Your task to perform on an android device: change keyboard looks Image 0: 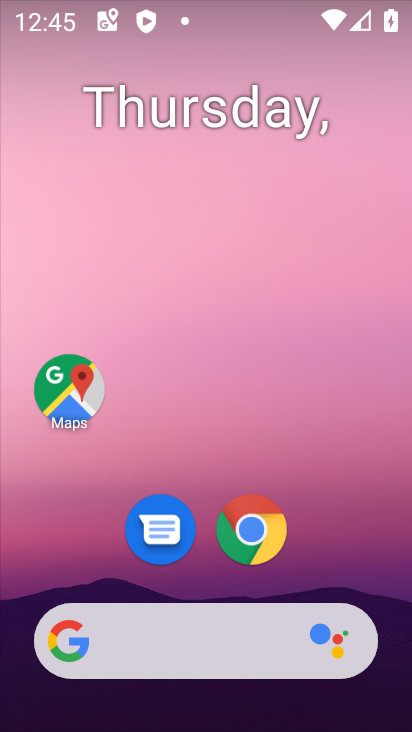
Step 0: drag from (211, 724) to (213, 140)
Your task to perform on an android device: change keyboard looks Image 1: 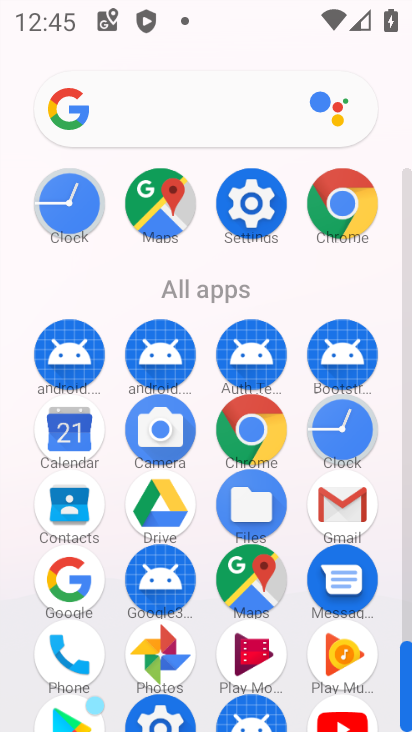
Step 1: click (247, 199)
Your task to perform on an android device: change keyboard looks Image 2: 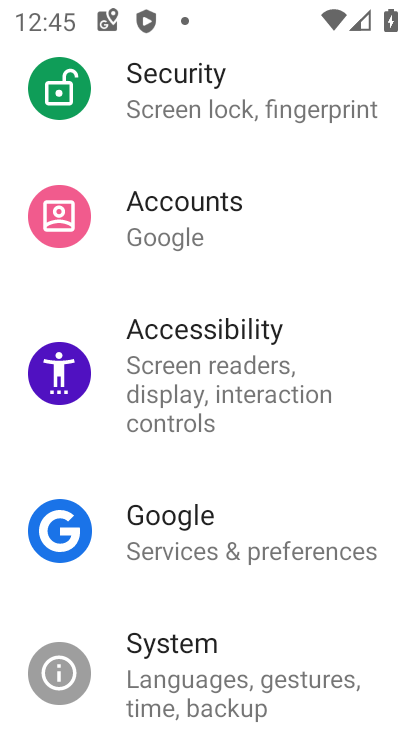
Step 2: drag from (198, 589) to (209, 172)
Your task to perform on an android device: change keyboard looks Image 3: 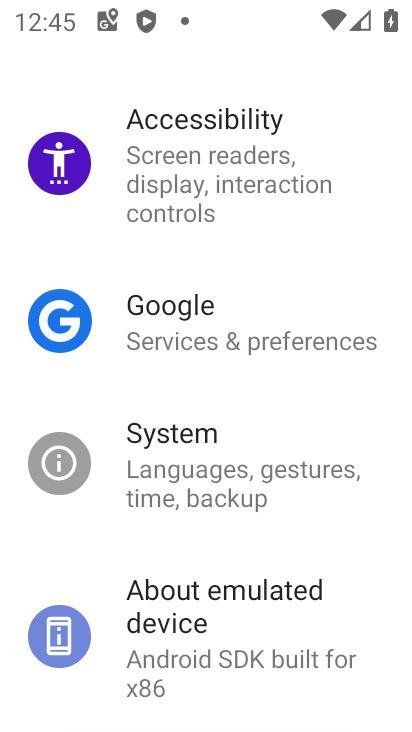
Step 3: click (167, 449)
Your task to perform on an android device: change keyboard looks Image 4: 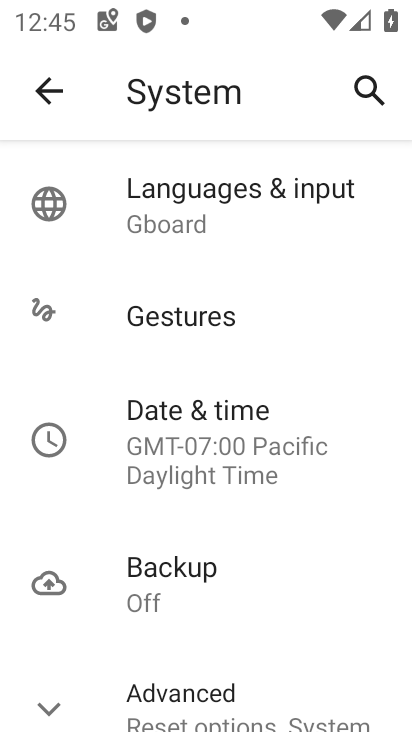
Step 4: click (165, 197)
Your task to perform on an android device: change keyboard looks Image 5: 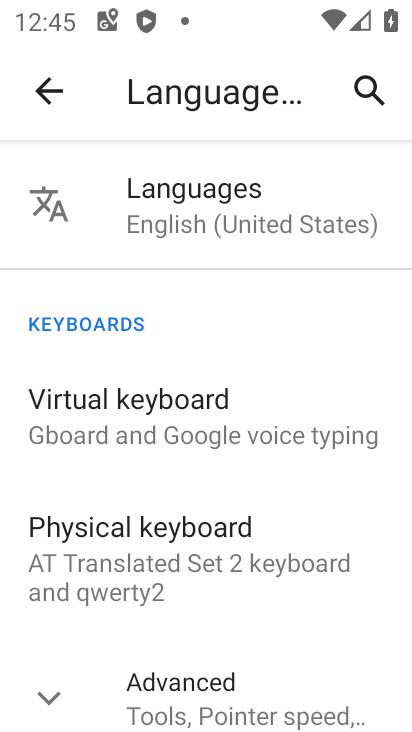
Step 5: click (137, 420)
Your task to perform on an android device: change keyboard looks Image 6: 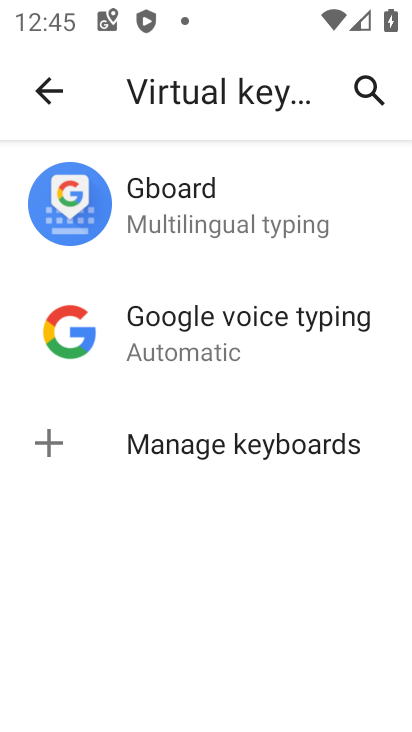
Step 6: click (157, 206)
Your task to perform on an android device: change keyboard looks Image 7: 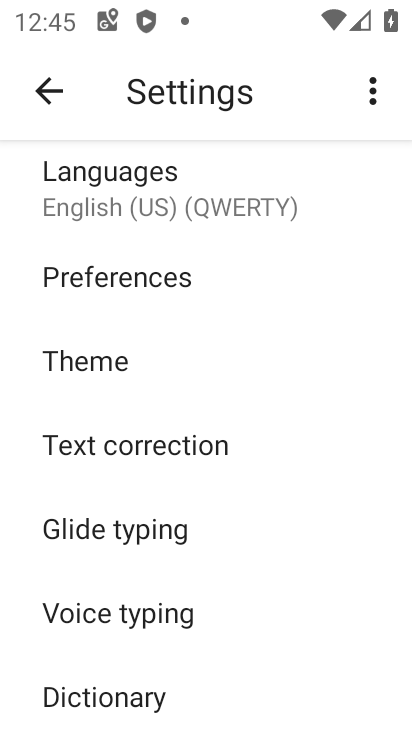
Step 7: click (92, 363)
Your task to perform on an android device: change keyboard looks Image 8: 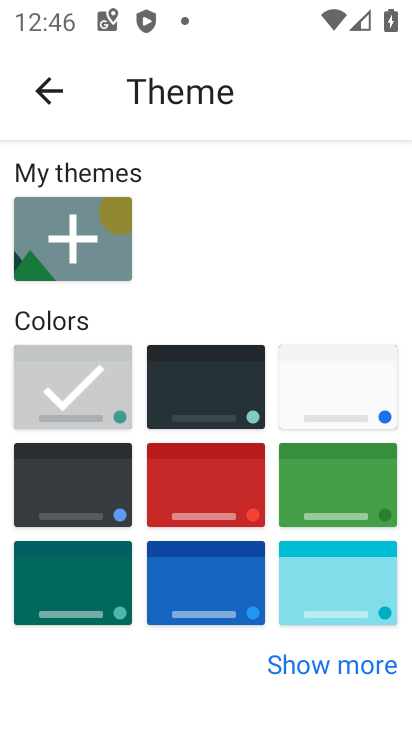
Step 8: click (205, 404)
Your task to perform on an android device: change keyboard looks Image 9: 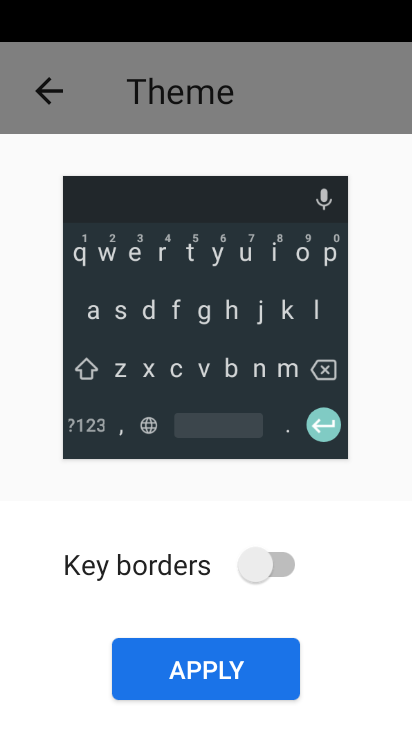
Step 9: click (280, 563)
Your task to perform on an android device: change keyboard looks Image 10: 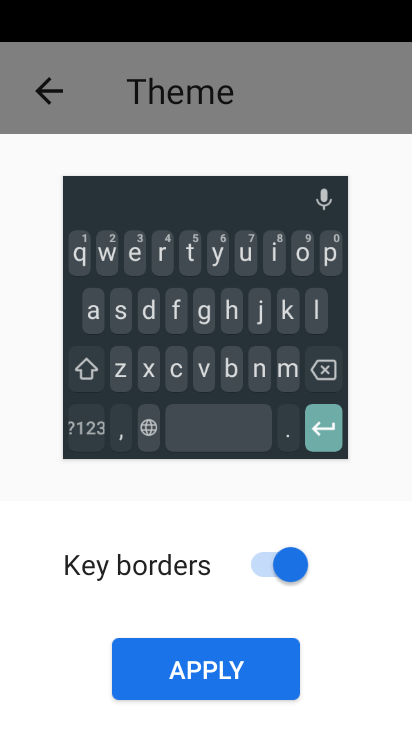
Step 10: click (232, 678)
Your task to perform on an android device: change keyboard looks Image 11: 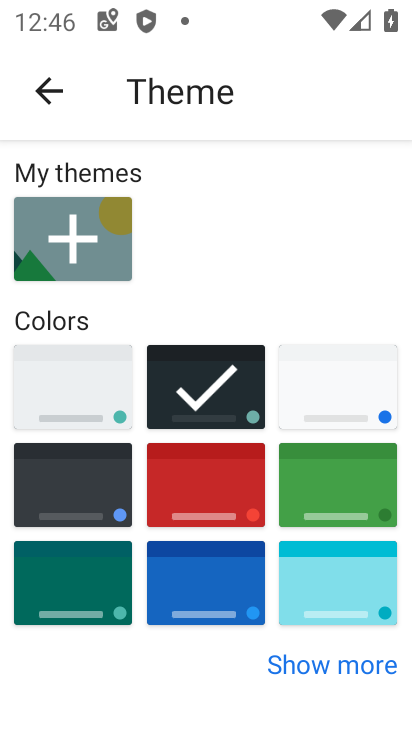
Step 11: task complete